Your task to perform on an android device: search for starred emails in the gmail app Image 0: 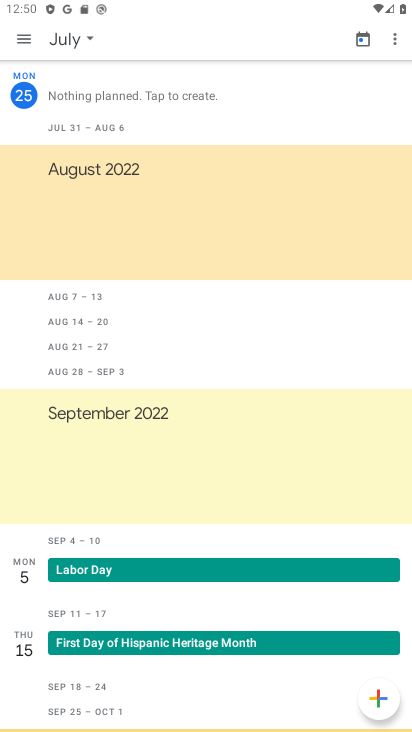
Step 0: press home button
Your task to perform on an android device: search for starred emails in the gmail app Image 1: 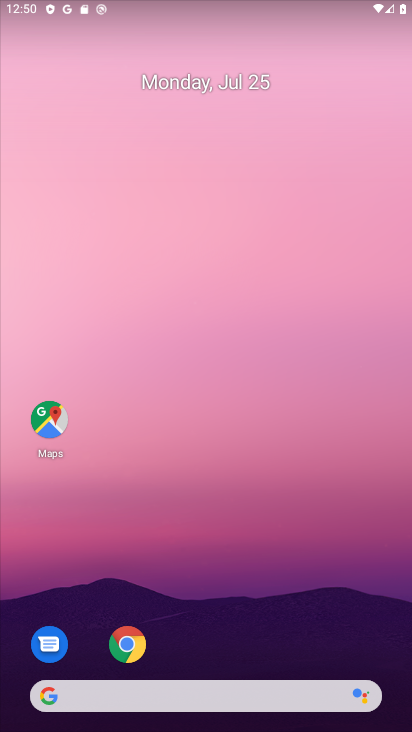
Step 1: drag from (230, 629) to (217, 54)
Your task to perform on an android device: search for starred emails in the gmail app Image 2: 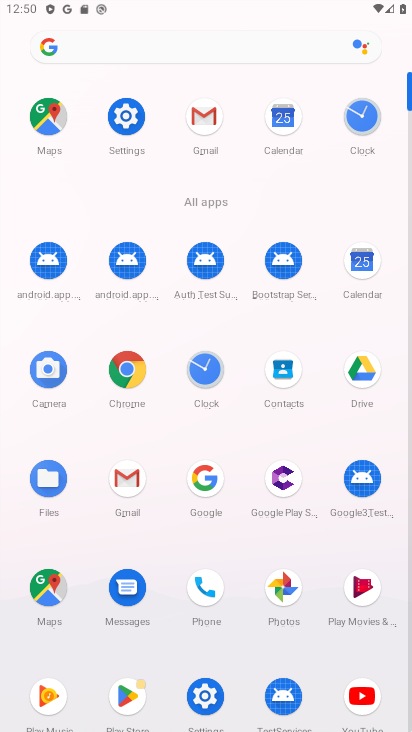
Step 2: click (196, 116)
Your task to perform on an android device: search for starred emails in the gmail app Image 3: 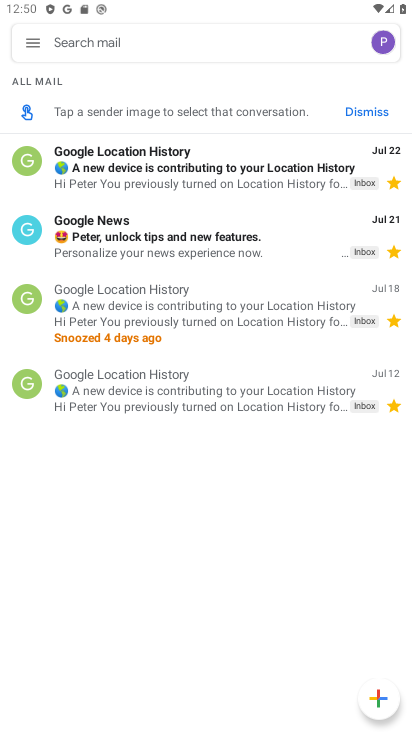
Step 3: click (30, 40)
Your task to perform on an android device: search for starred emails in the gmail app Image 4: 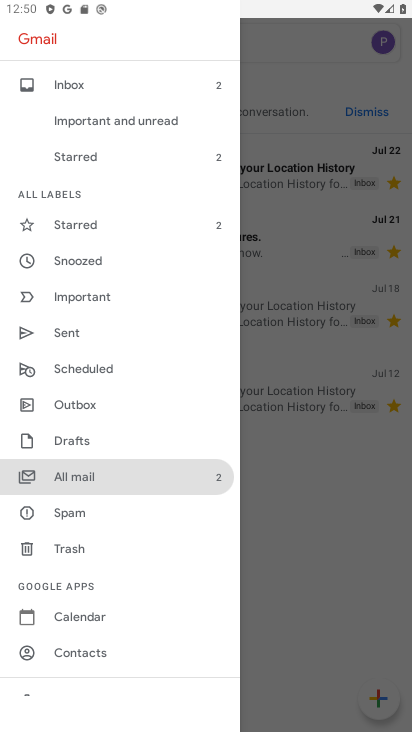
Step 4: click (71, 225)
Your task to perform on an android device: search for starred emails in the gmail app Image 5: 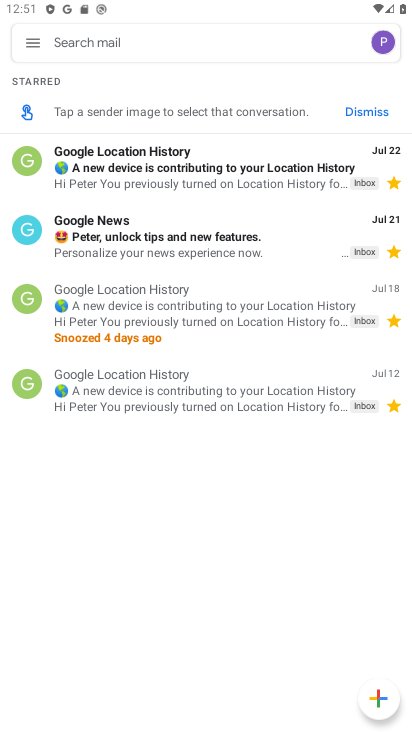
Step 5: task complete